Your task to perform on an android device: Open network settings Image 0: 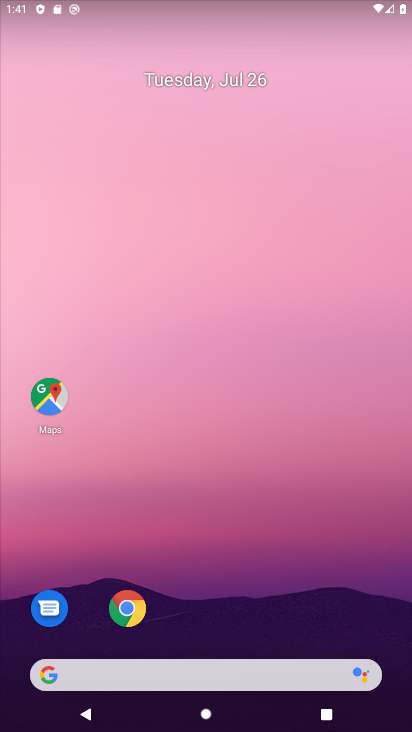
Step 0: drag from (272, 601) to (307, 195)
Your task to perform on an android device: Open network settings Image 1: 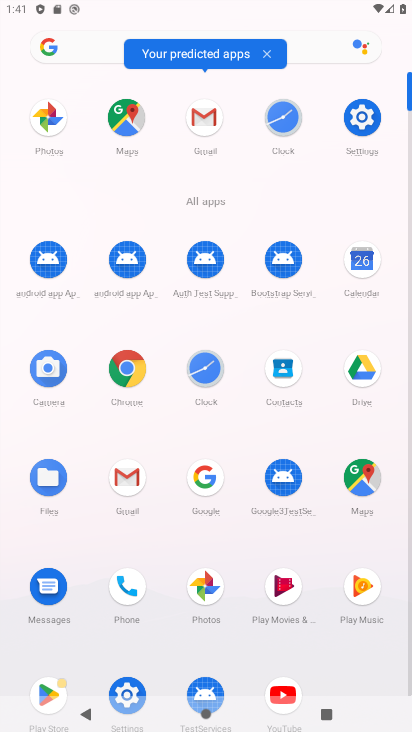
Step 1: click (363, 118)
Your task to perform on an android device: Open network settings Image 2: 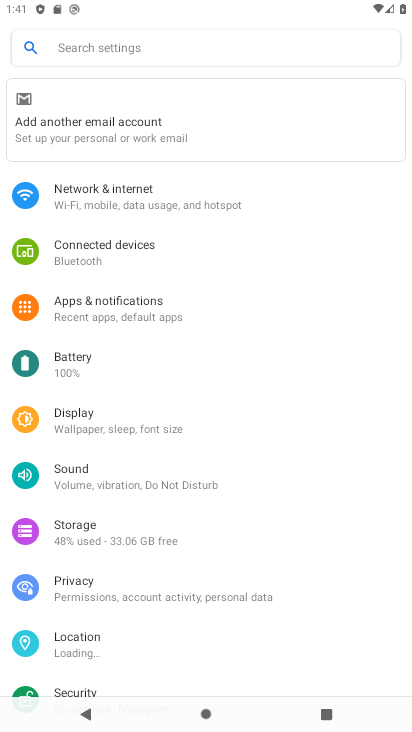
Step 2: click (118, 201)
Your task to perform on an android device: Open network settings Image 3: 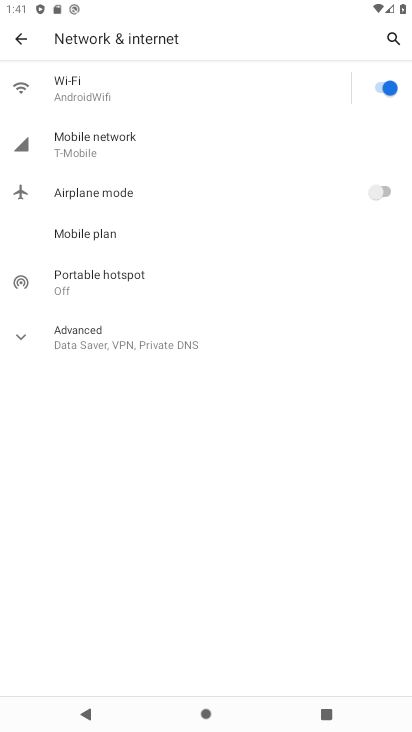
Step 3: task complete